Your task to perform on an android device: set the stopwatch Image 0: 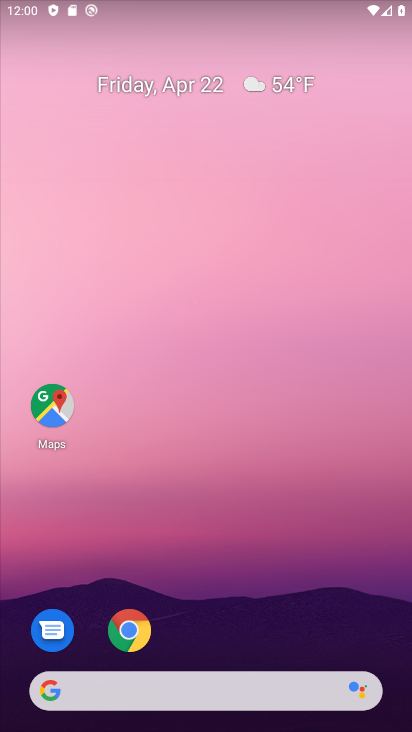
Step 0: drag from (264, 648) to (321, 396)
Your task to perform on an android device: set the stopwatch Image 1: 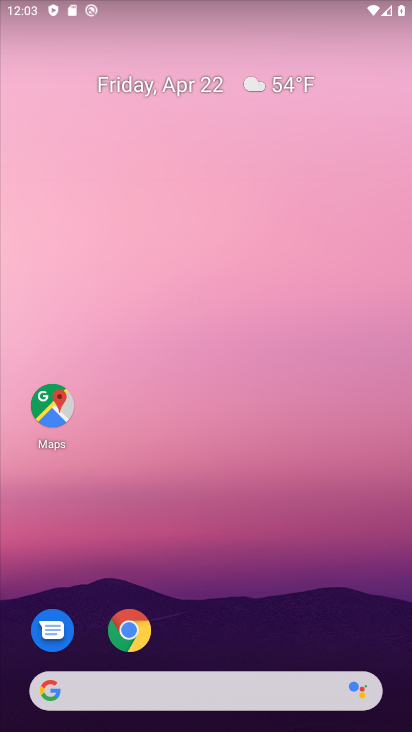
Step 1: drag from (218, 664) to (170, 194)
Your task to perform on an android device: set the stopwatch Image 2: 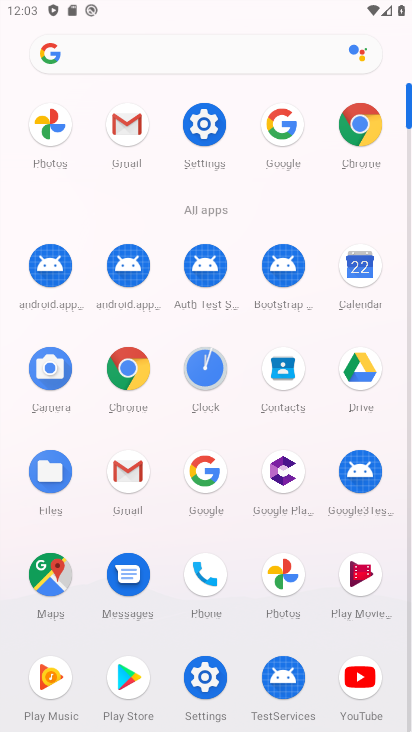
Step 2: click (199, 375)
Your task to perform on an android device: set the stopwatch Image 3: 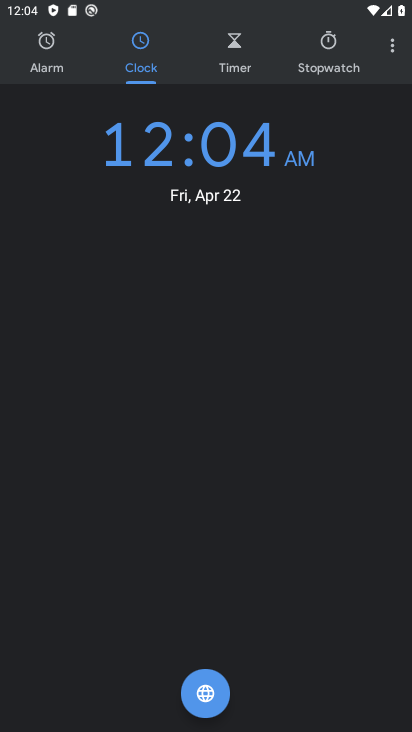
Step 3: click (318, 63)
Your task to perform on an android device: set the stopwatch Image 4: 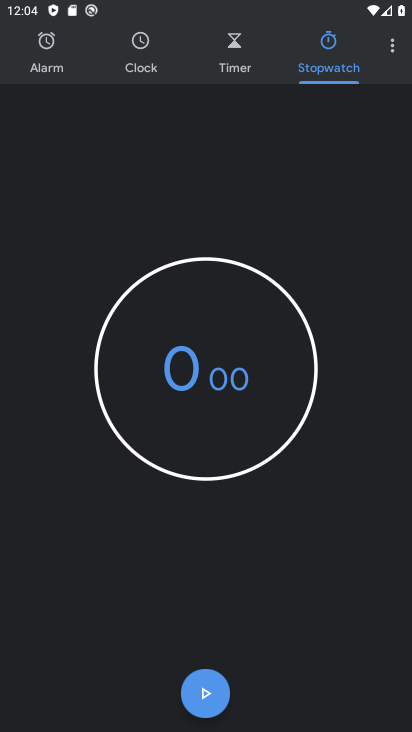
Step 4: click (216, 687)
Your task to perform on an android device: set the stopwatch Image 5: 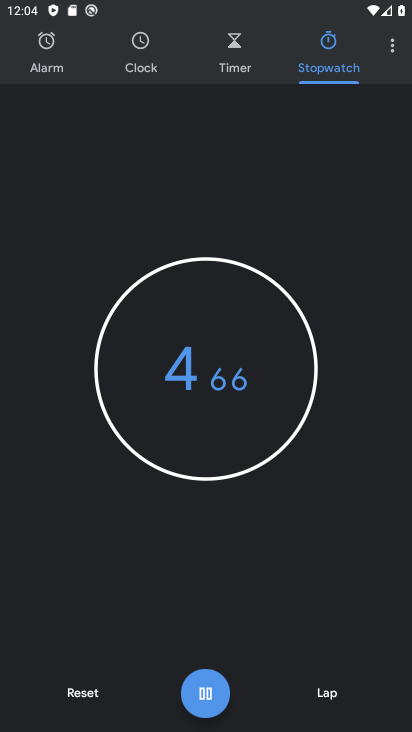
Step 5: click (196, 693)
Your task to perform on an android device: set the stopwatch Image 6: 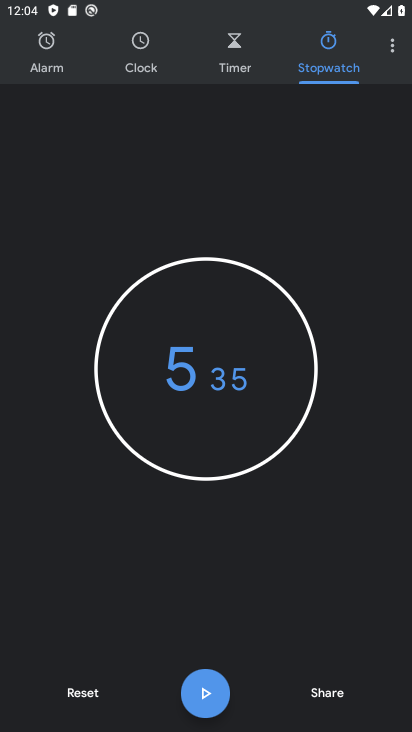
Step 6: task complete